Your task to perform on an android device: Open the calendar app, open the side menu, and click the "Day" option Image 0: 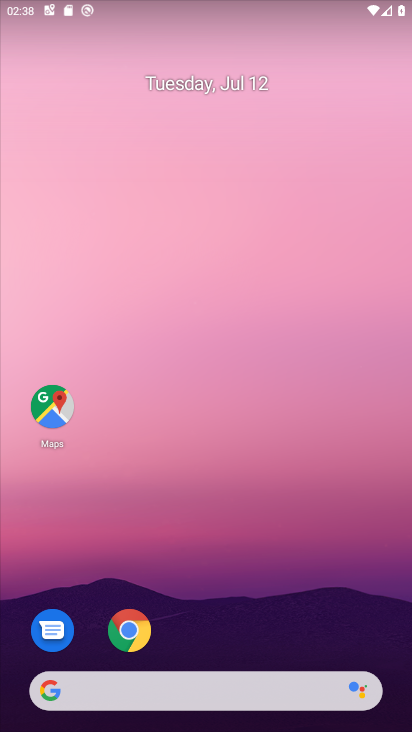
Step 0: drag from (354, 641) to (299, 96)
Your task to perform on an android device: Open the calendar app, open the side menu, and click the "Day" option Image 1: 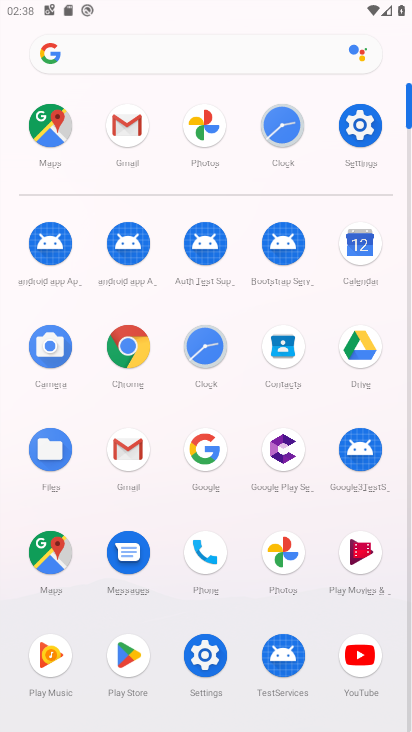
Step 1: click (359, 244)
Your task to perform on an android device: Open the calendar app, open the side menu, and click the "Day" option Image 2: 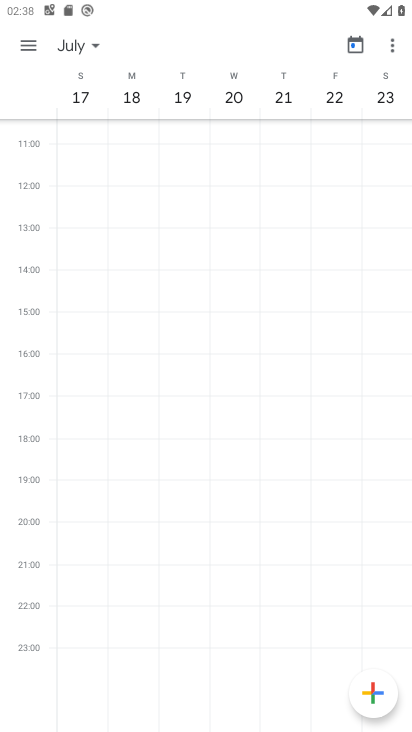
Step 2: click (30, 37)
Your task to perform on an android device: Open the calendar app, open the side menu, and click the "Day" option Image 3: 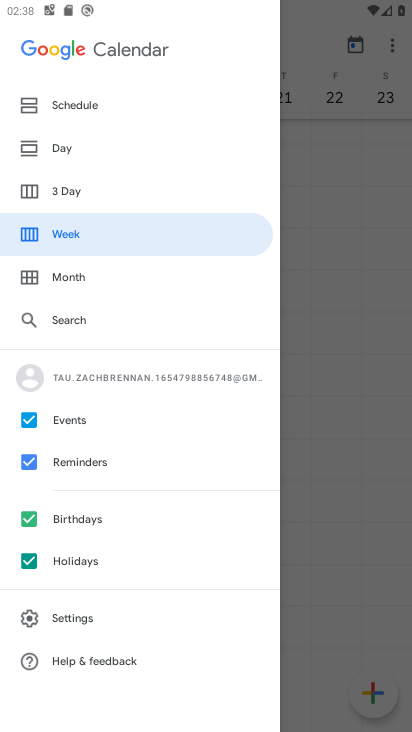
Step 3: click (55, 143)
Your task to perform on an android device: Open the calendar app, open the side menu, and click the "Day" option Image 4: 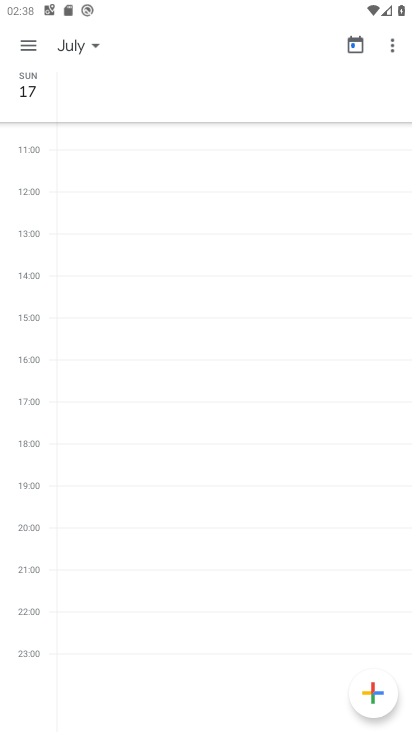
Step 4: task complete